Your task to perform on an android device: turn notification dots off Image 0: 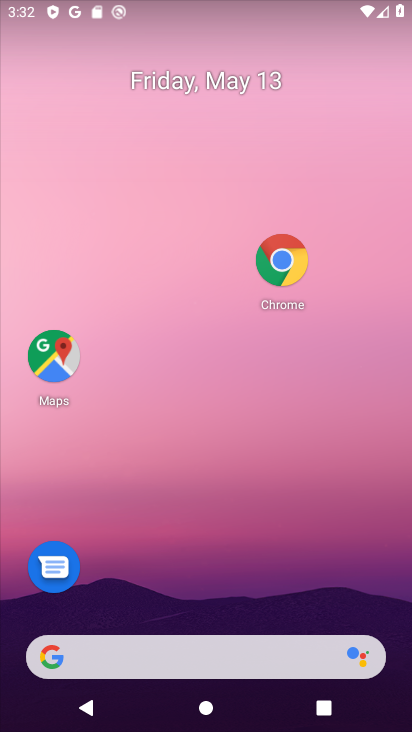
Step 0: drag from (313, 648) to (188, 128)
Your task to perform on an android device: turn notification dots off Image 1: 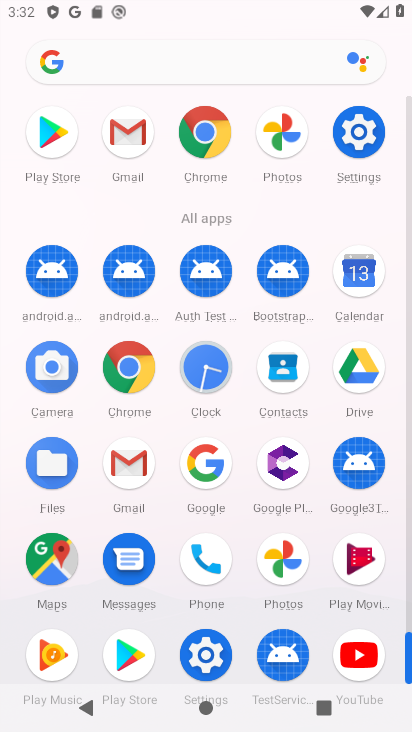
Step 1: click (362, 136)
Your task to perform on an android device: turn notification dots off Image 2: 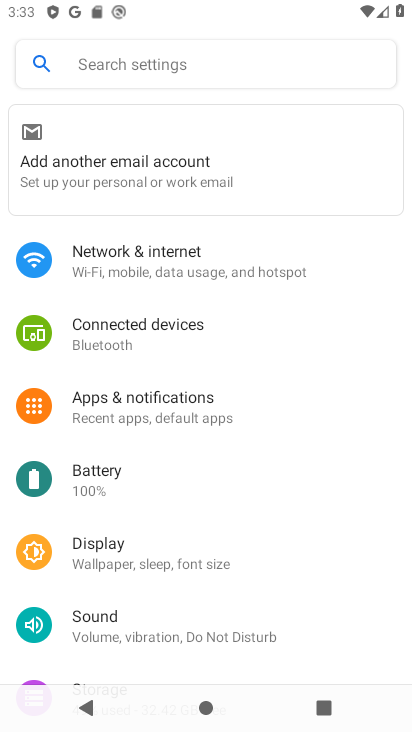
Step 2: click (169, 397)
Your task to perform on an android device: turn notification dots off Image 3: 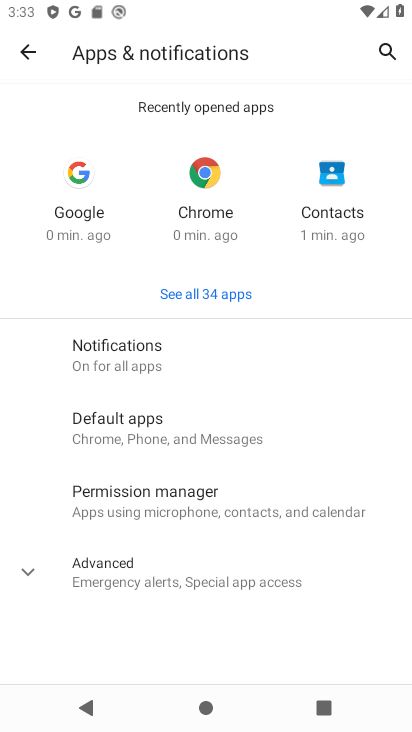
Step 3: click (129, 393)
Your task to perform on an android device: turn notification dots off Image 4: 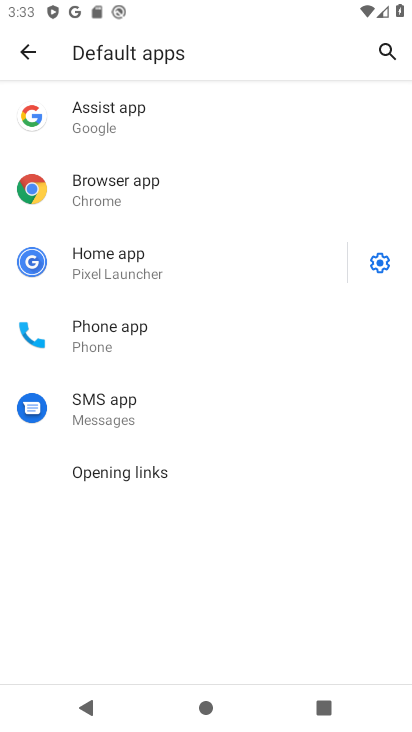
Step 4: click (19, 46)
Your task to perform on an android device: turn notification dots off Image 5: 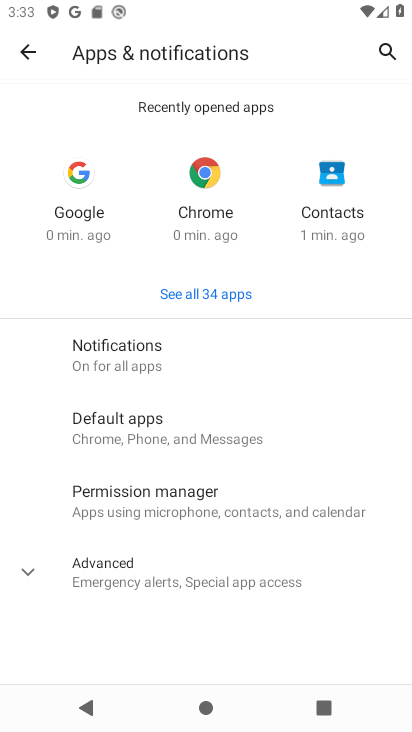
Step 5: click (131, 350)
Your task to perform on an android device: turn notification dots off Image 6: 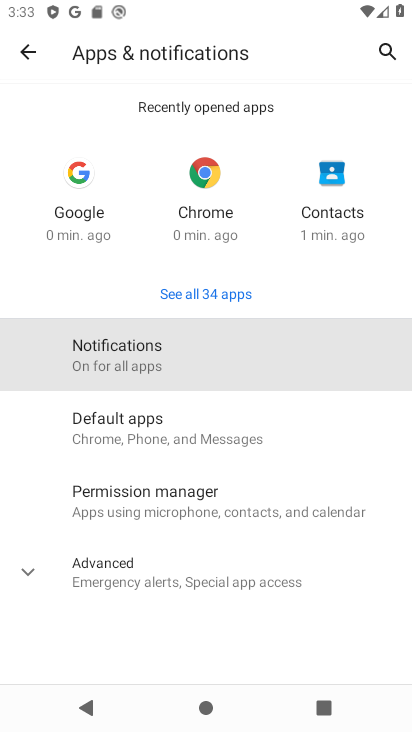
Step 6: click (130, 350)
Your task to perform on an android device: turn notification dots off Image 7: 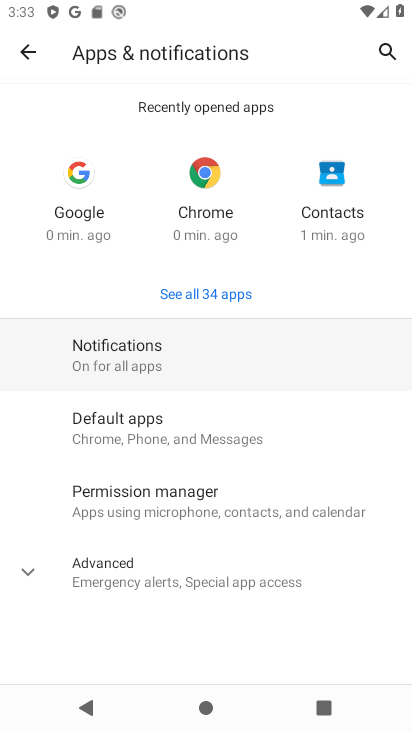
Step 7: click (130, 350)
Your task to perform on an android device: turn notification dots off Image 8: 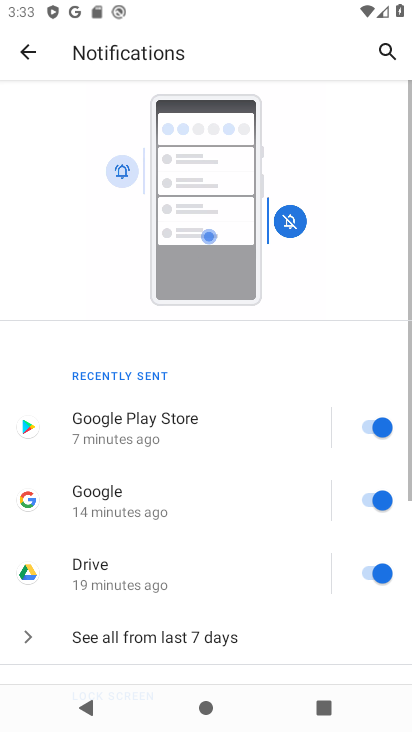
Step 8: drag from (256, 533) to (187, 134)
Your task to perform on an android device: turn notification dots off Image 9: 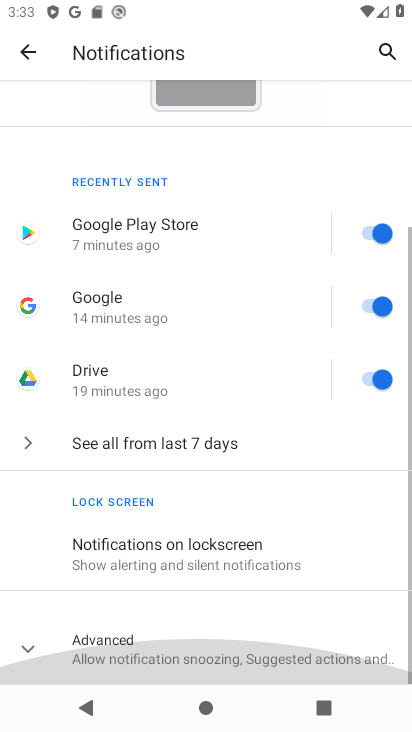
Step 9: drag from (230, 475) to (209, 186)
Your task to perform on an android device: turn notification dots off Image 10: 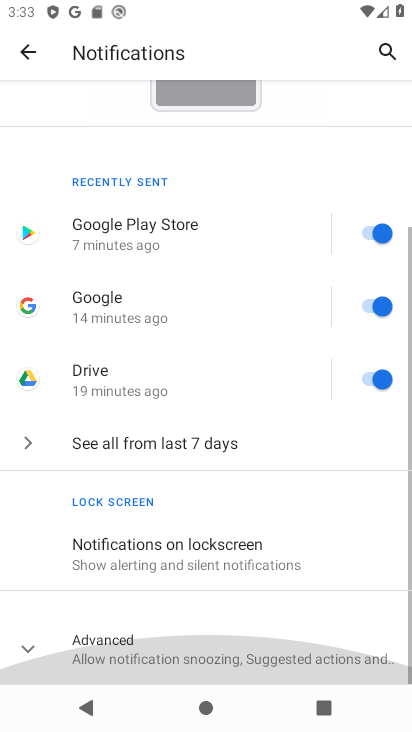
Step 10: drag from (224, 439) to (241, 72)
Your task to perform on an android device: turn notification dots off Image 11: 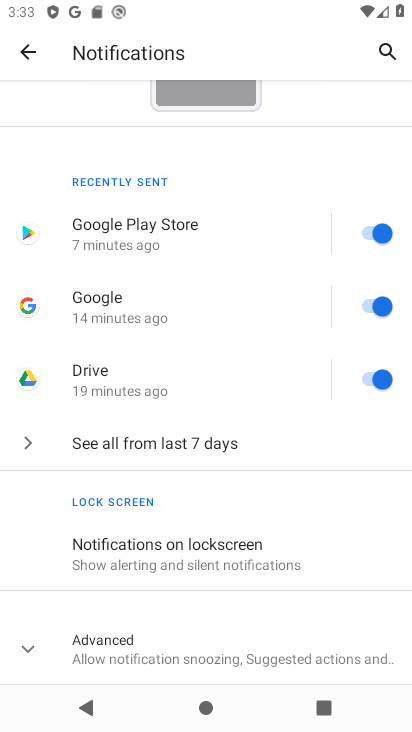
Step 11: click (96, 656)
Your task to perform on an android device: turn notification dots off Image 12: 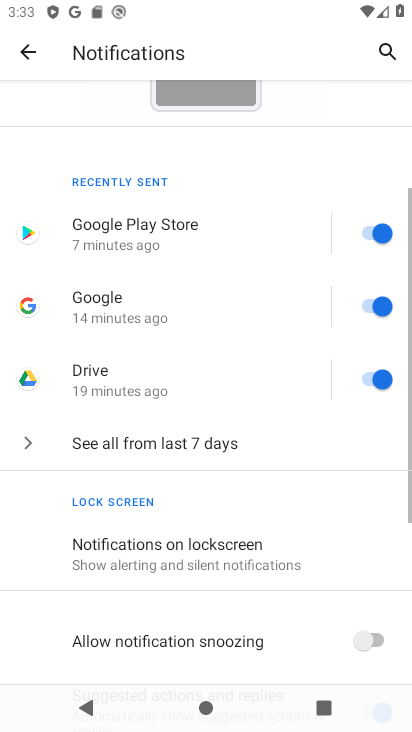
Step 12: task complete